Your task to perform on an android device: change keyboard looks Image 0: 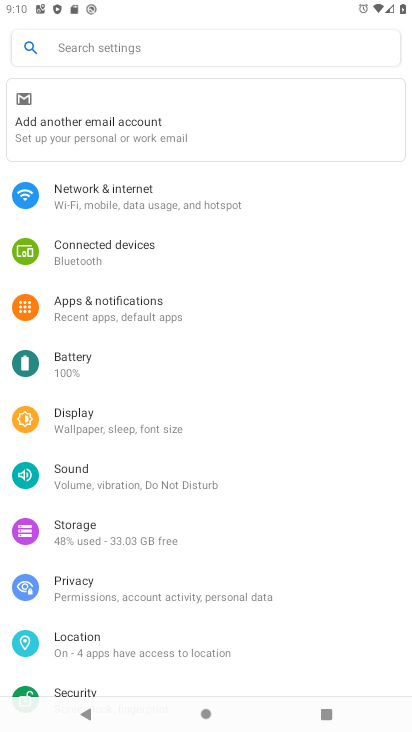
Step 0: drag from (270, 295) to (315, 70)
Your task to perform on an android device: change keyboard looks Image 1: 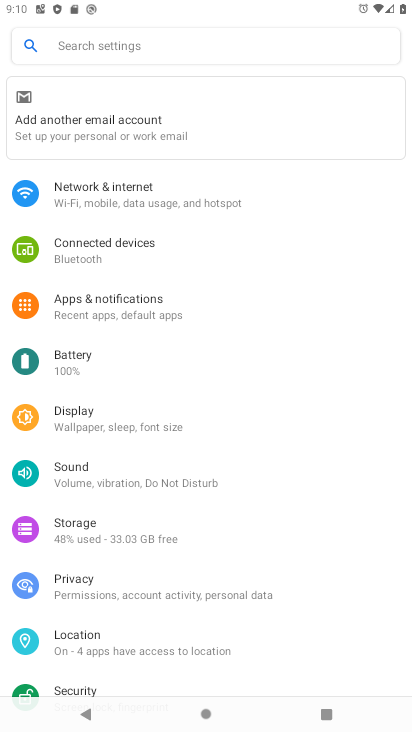
Step 1: drag from (202, 602) to (205, 253)
Your task to perform on an android device: change keyboard looks Image 2: 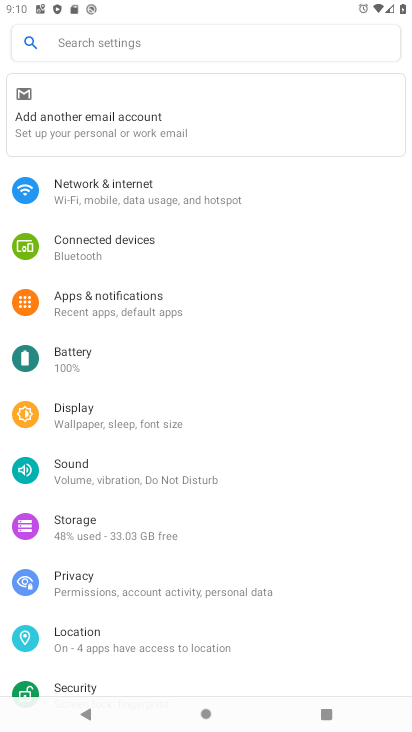
Step 2: drag from (211, 382) to (233, 228)
Your task to perform on an android device: change keyboard looks Image 3: 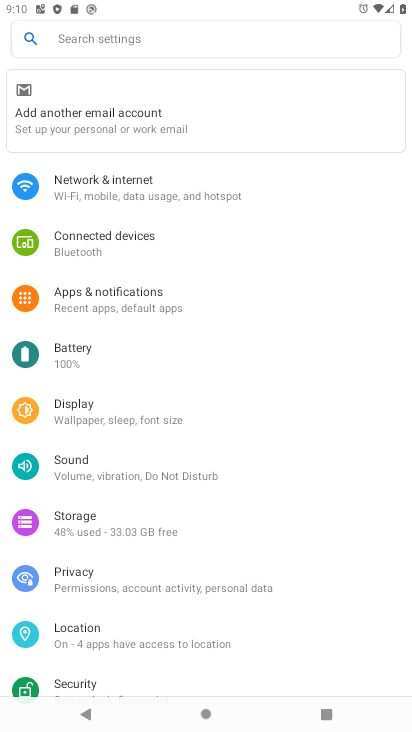
Step 3: drag from (97, 650) to (229, 248)
Your task to perform on an android device: change keyboard looks Image 4: 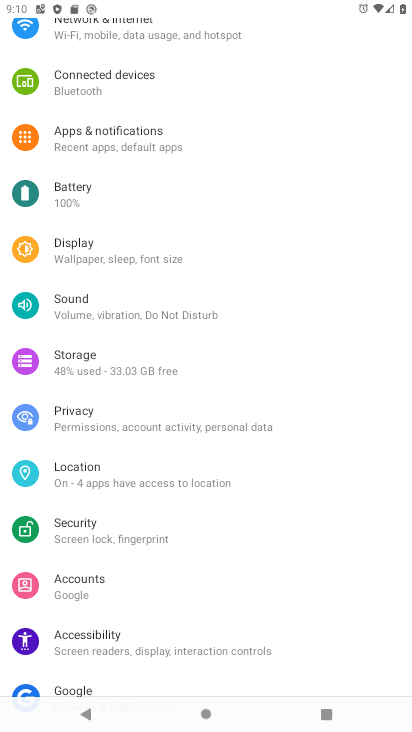
Step 4: drag from (152, 654) to (248, 182)
Your task to perform on an android device: change keyboard looks Image 5: 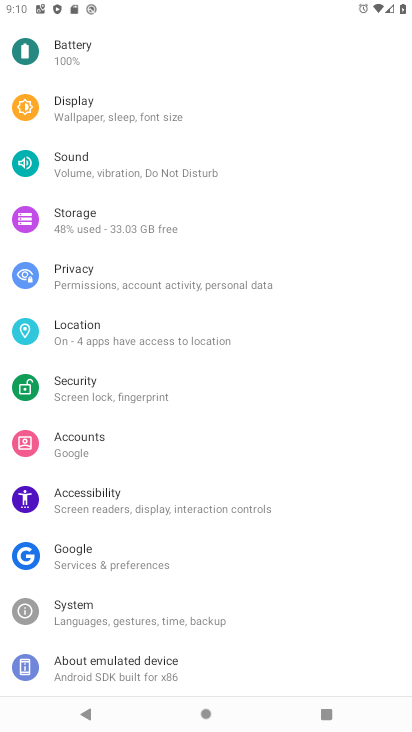
Step 5: click (112, 497)
Your task to perform on an android device: change keyboard looks Image 6: 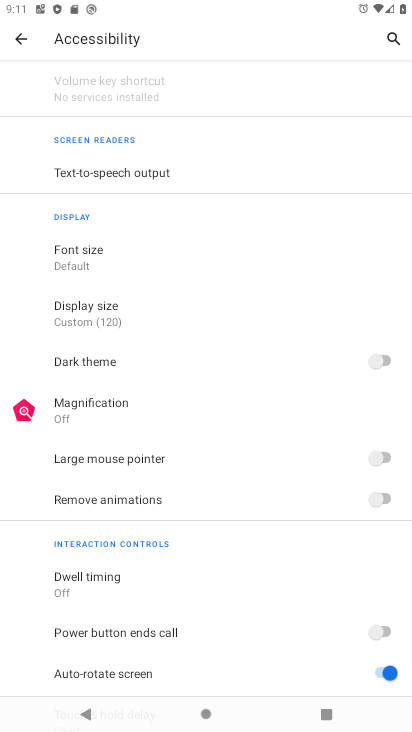
Step 6: task complete